Your task to perform on an android device: turn notification dots on Image 0: 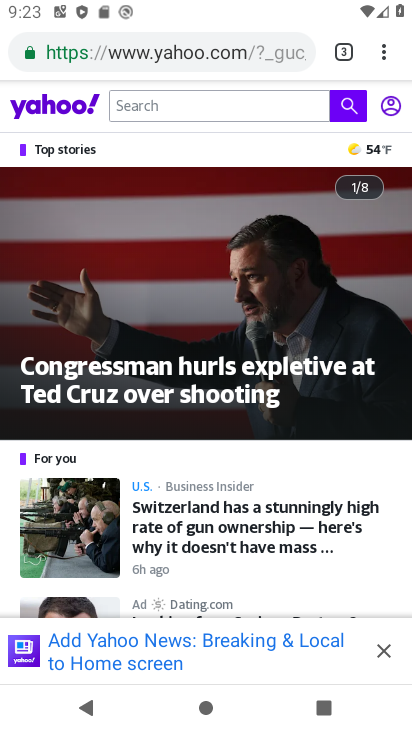
Step 0: press home button
Your task to perform on an android device: turn notification dots on Image 1: 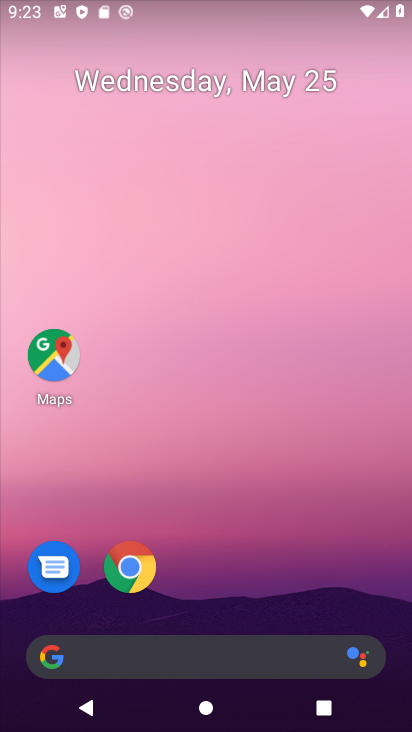
Step 1: drag from (268, 554) to (228, 0)
Your task to perform on an android device: turn notification dots on Image 2: 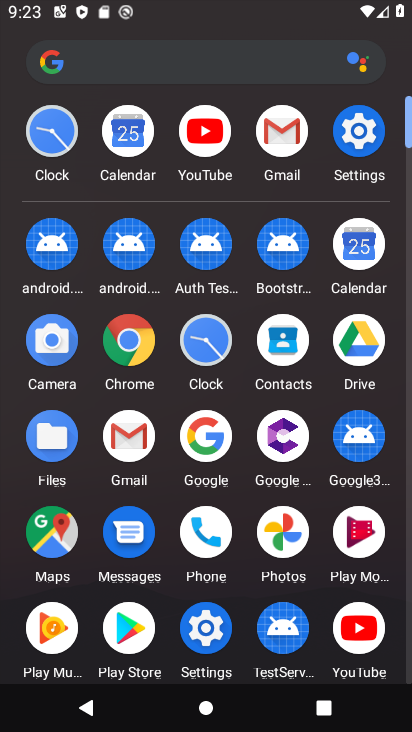
Step 2: click (370, 126)
Your task to perform on an android device: turn notification dots on Image 3: 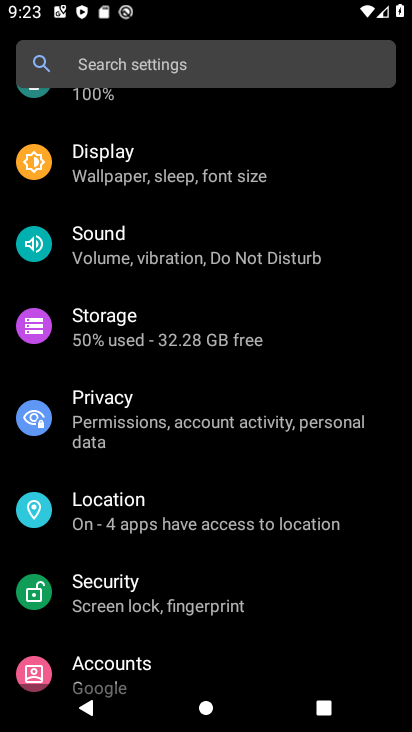
Step 3: drag from (198, 307) to (257, 714)
Your task to perform on an android device: turn notification dots on Image 4: 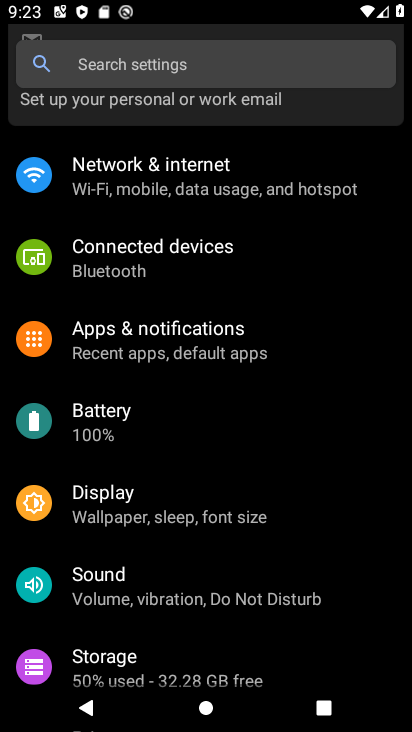
Step 4: click (172, 342)
Your task to perform on an android device: turn notification dots on Image 5: 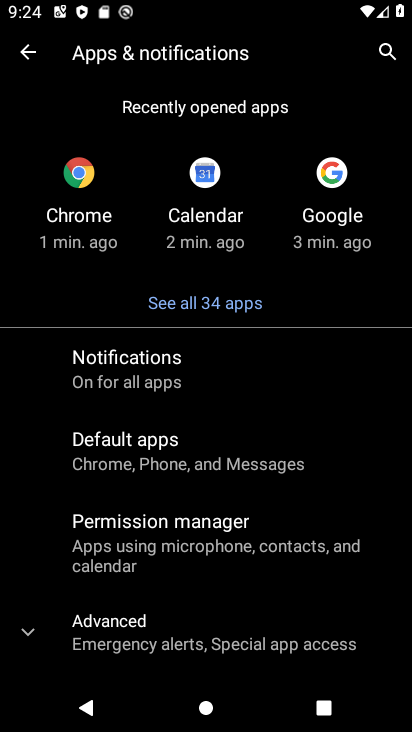
Step 5: click (211, 363)
Your task to perform on an android device: turn notification dots on Image 6: 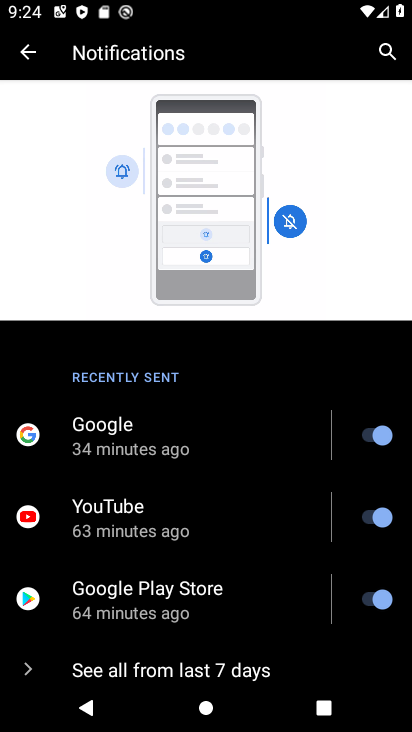
Step 6: drag from (242, 632) to (235, 194)
Your task to perform on an android device: turn notification dots on Image 7: 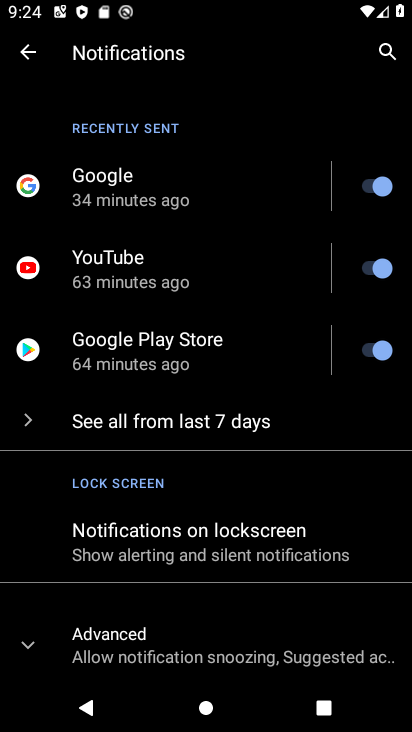
Step 7: click (175, 624)
Your task to perform on an android device: turn notification dots on Image 8: 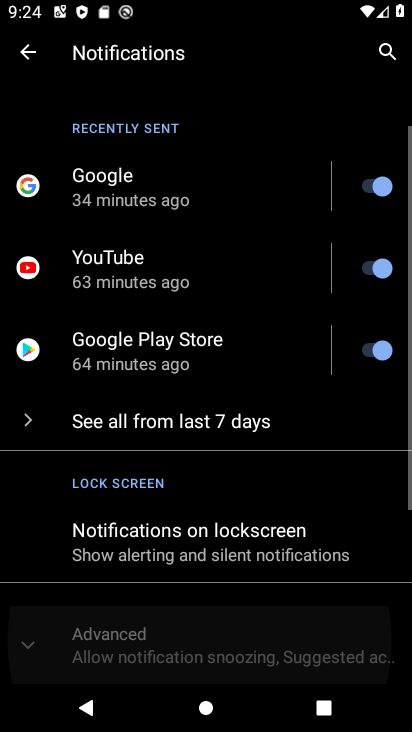
Step 8: drag from (175, 624) to (210, 380)
Your task to perform on an android device: turn notification dots on Image 9: 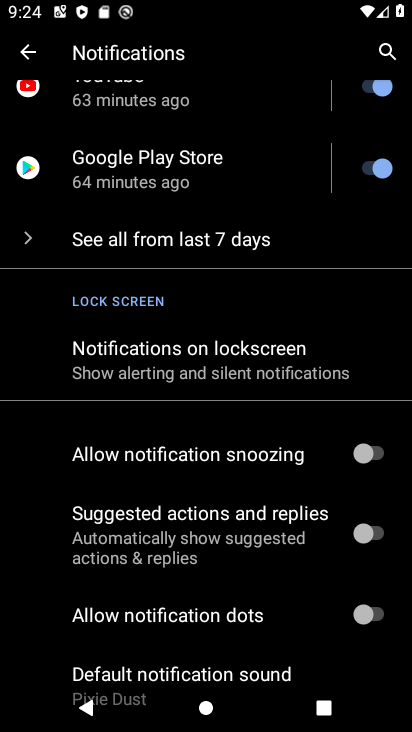
Step 9: click (356, 633)
Your task to perform on an android device: turn notification dots on Image 10: 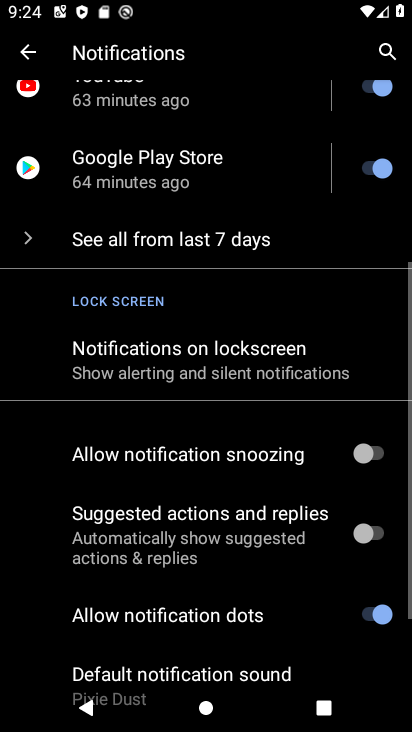
Step 10: task complete